Your task to perform on an android device: What's on my calendar today? Image 0: 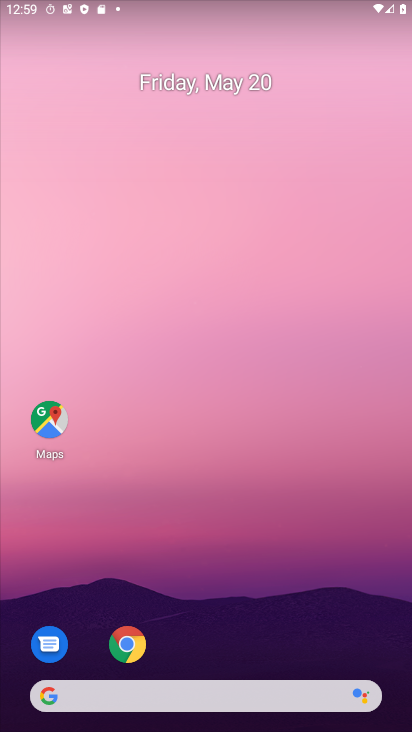
Step 0: drag from (305, 566) to (311, 93)
Your task to perform on an android device: What's on my calendar today? Image 1: 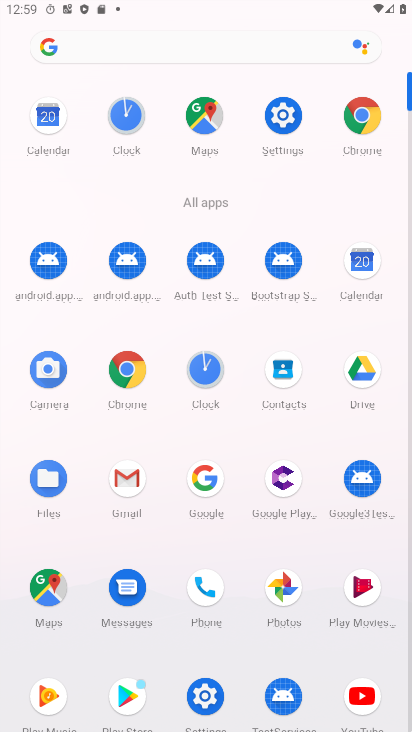
Step 1: click (350, 272)
Your task to perform on an android device: What's on my calendar today? Image 2: 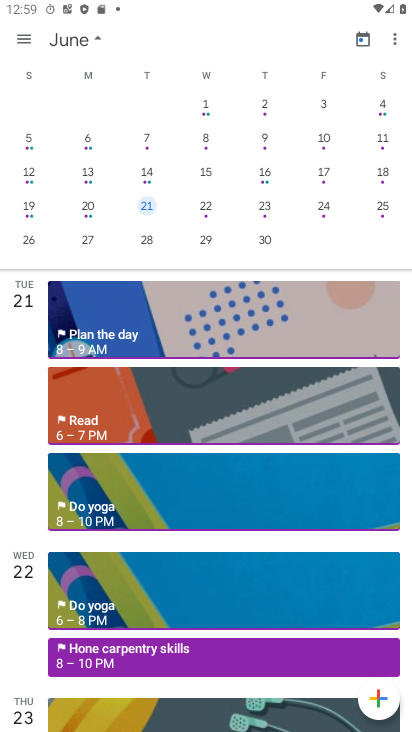
Step 2: task complete